Your task to perform on an android device: open app "Messages" (install if not already installed) Image 0: 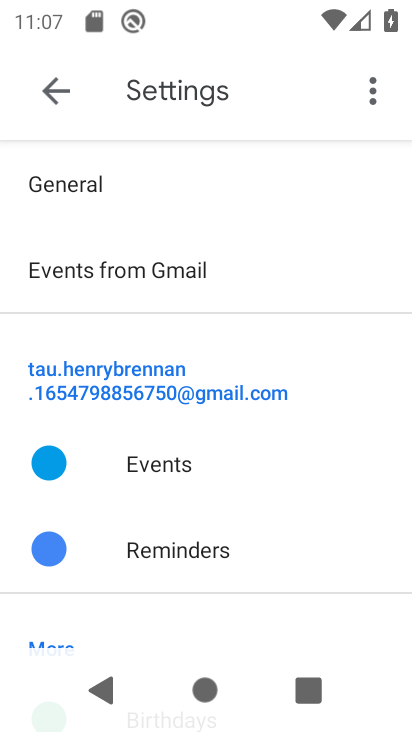
Step 0: press home button
Your task to perform on an android device: open app "Messages" (install if not already installed) Image 1: 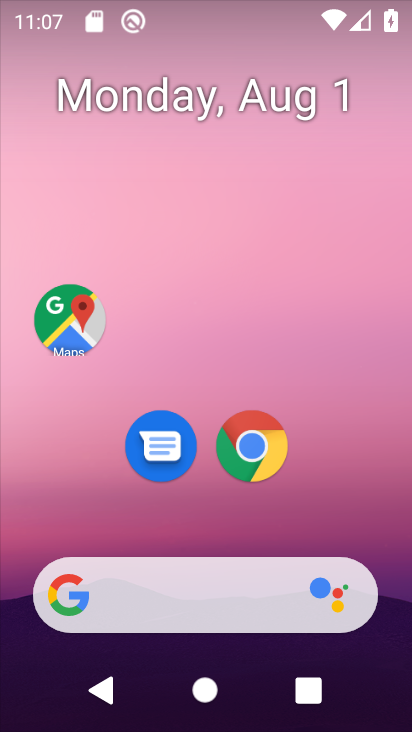
Step 1: drag from (186, 513) to (235, 167)
Your task to perform on an android device: open app "Messages" (install if not already installed) Image 2: 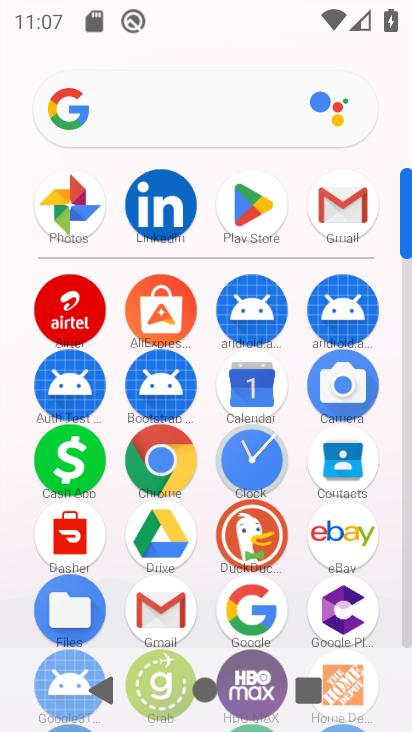
Step 2: click (236, 205)
Your task to perform on an android device: open app "Messages" (install if not already installed) Image 3: 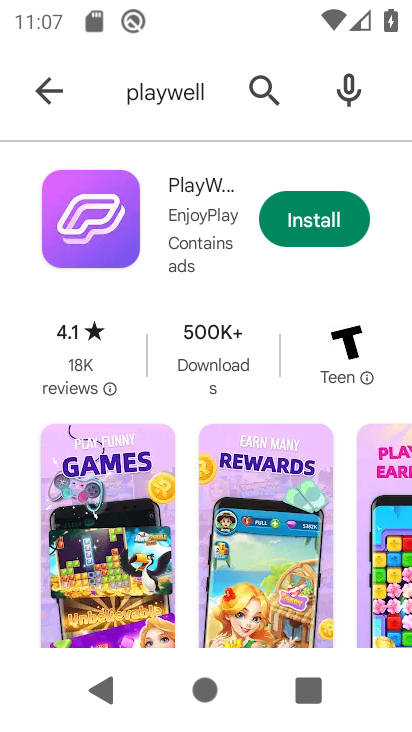
Step 3: click (256, 88)
Your task to perform on an android device: open app "Messages" (install if not already installed) Image 4: 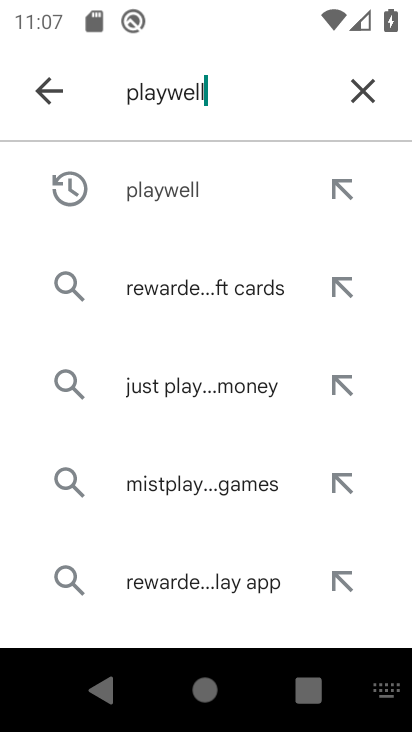
Step 4: click (370, 92)
Your task to perform on an android device: open app "Messages" (install if not already installed) Image 5: 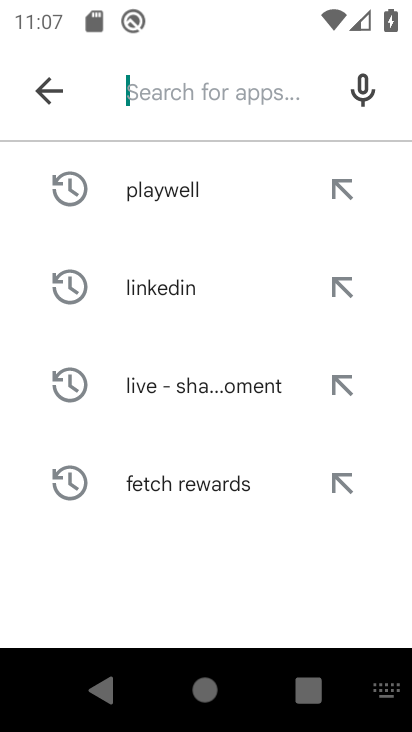
Step 5: type "Messages"
Your task to perform on an android device: open app "Messages" (install if not already installed) Image 6: 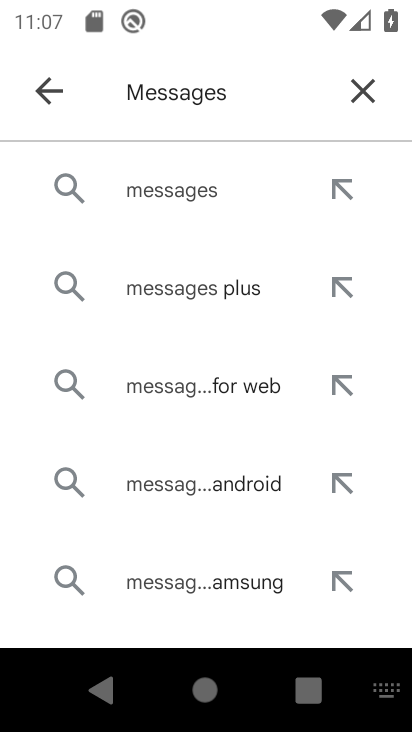
Step 6: click (157, 193)
Your task to perform on an android device: open app "Messages" (install if not already installed) Image 7: 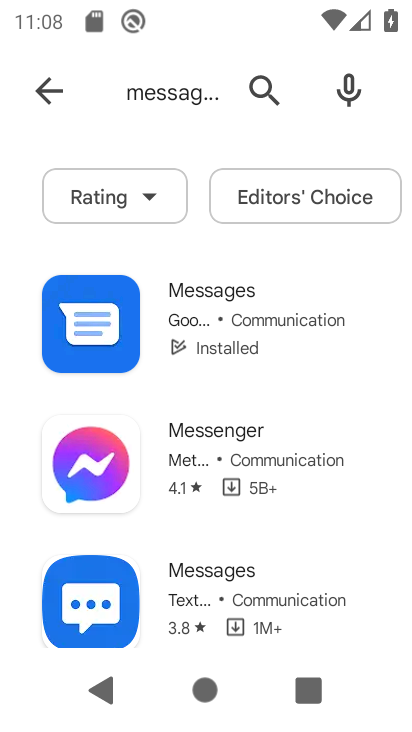
Step 7: click (221, 292)
Your task to perform on an android device: open app "Messages" (install if not already installed) Image 8: 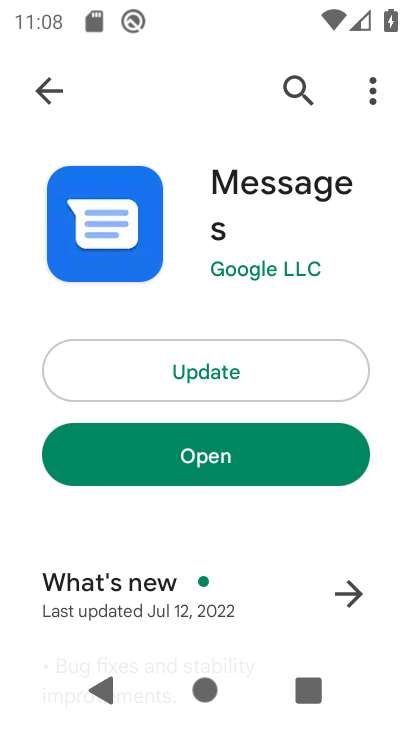
Step 8: click (247, 452)
Your task to perform on an android device: open app "Messages" (install if not already installed) Image 9: 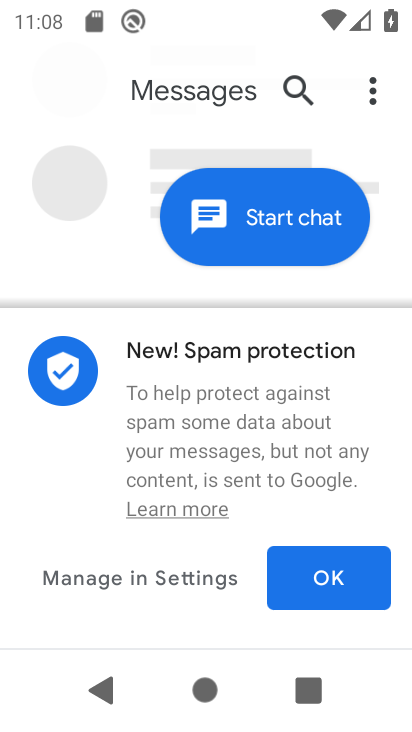
Step 9: task complete